Your task to perform on an android device: turn on notifications settings in the gmail app Image 0: 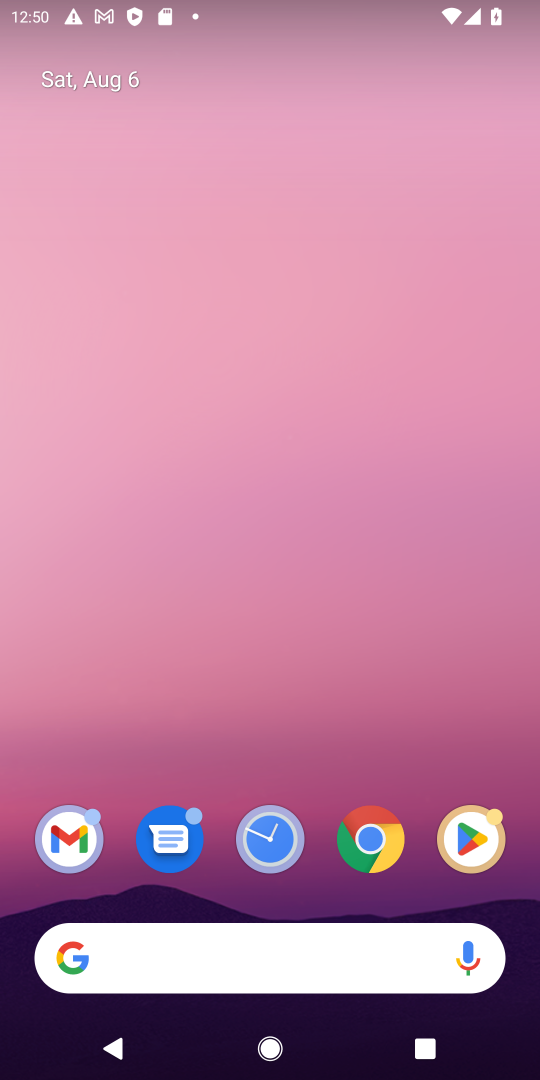
Step 0: click (71, 846)
Your task to perform on an android device: turn on notifications settings in the gmail app Image 1: 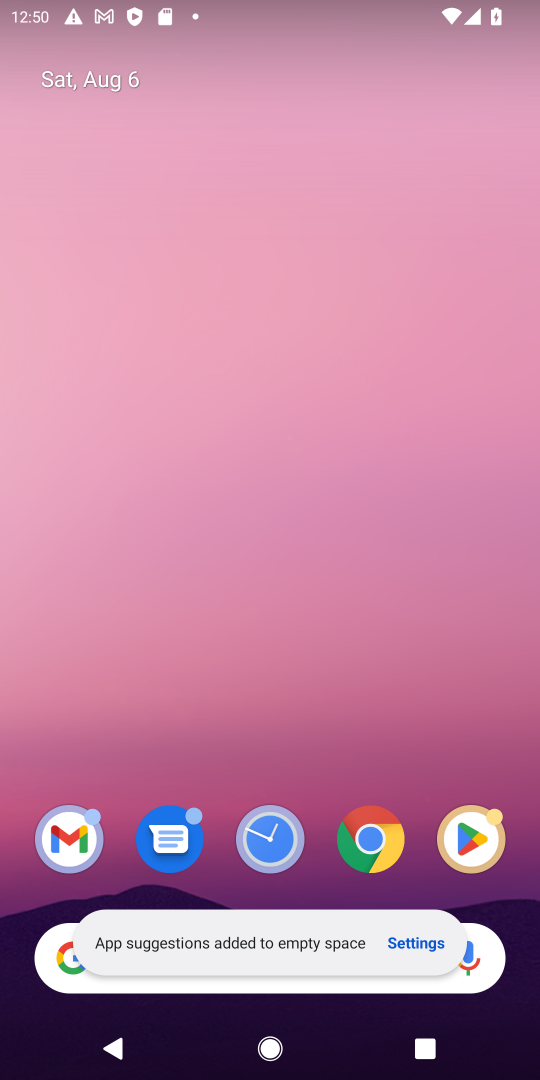
Step 1: click (74, 842)
Your task to perform on an android device: turn on notifications settings in the gmail app Image 2: 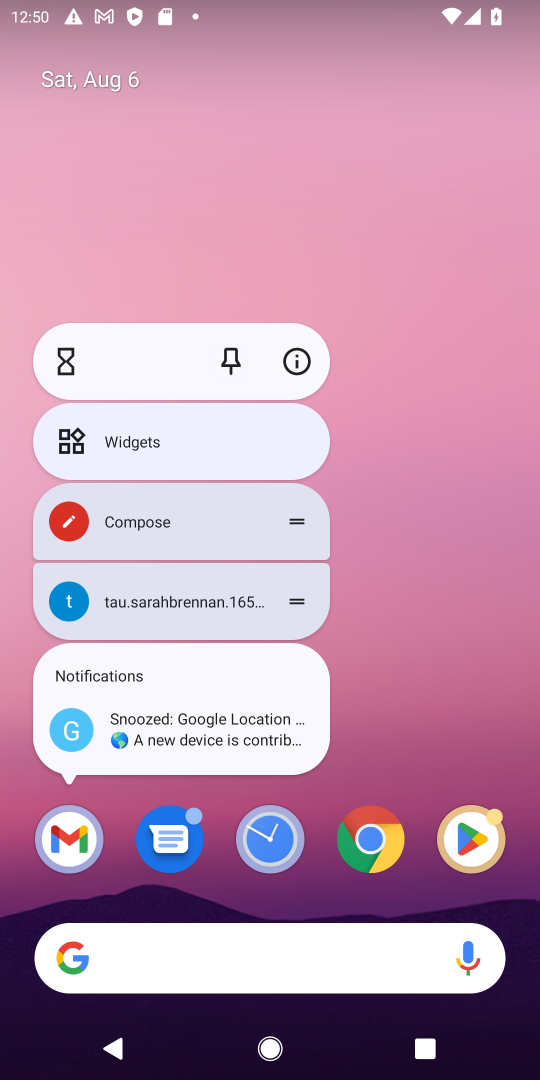
Step 2: click (286, 360)
Your task to perform on an android device: turn on notifications settings in the gmail app Image 3: 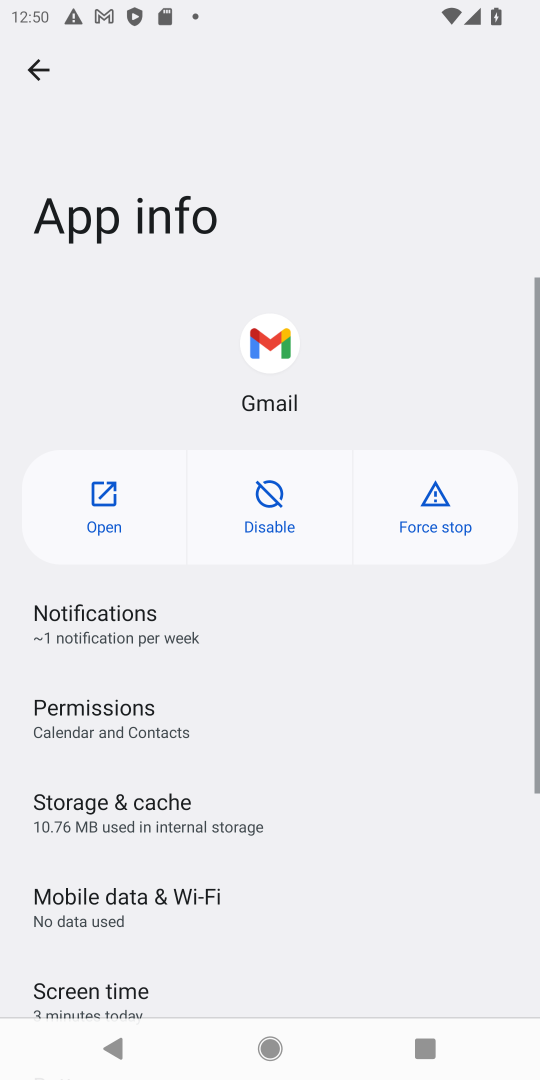
Step 3: click (127, 646)
Your task to perform on an android device: turn on notifications settings in the gmail app Image 4: 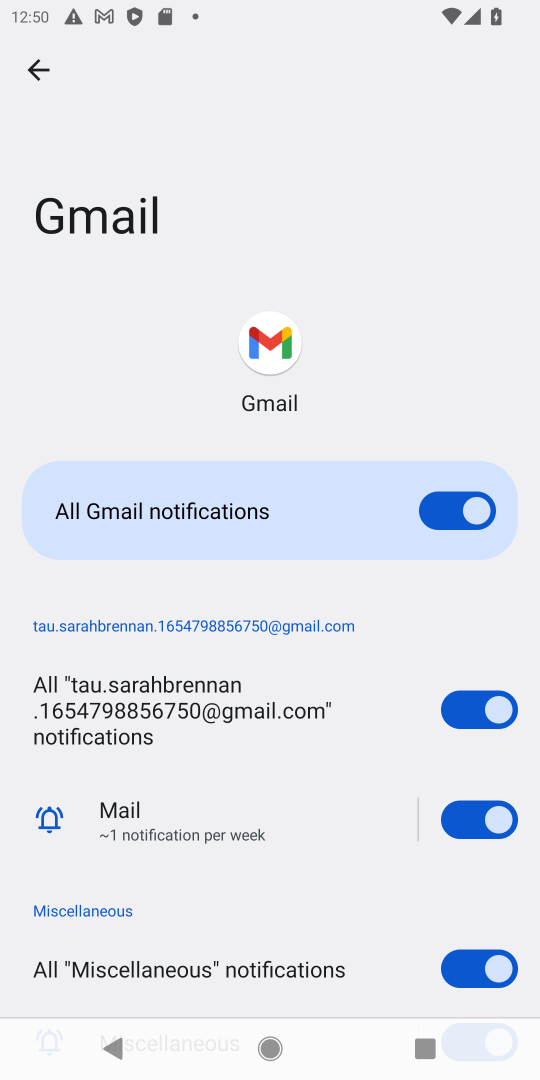
Step 4: task complete